Your task to perform on an android device: turn off airplane mode Image 0: 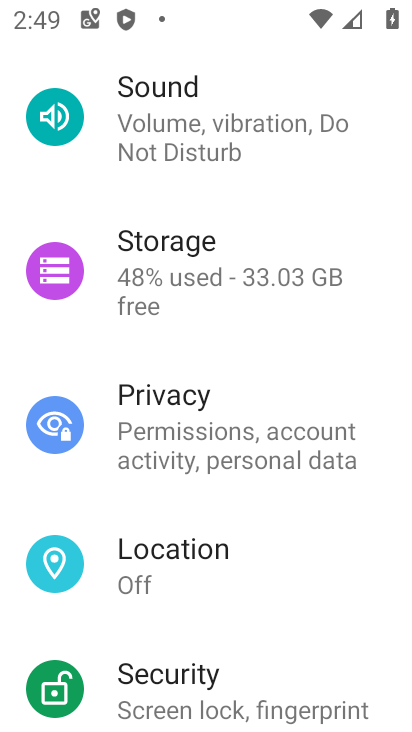
Step 0: drag from (262, 233) to (240, 631)
Your task to perform on an android device: turn off airplane mode Image 1: 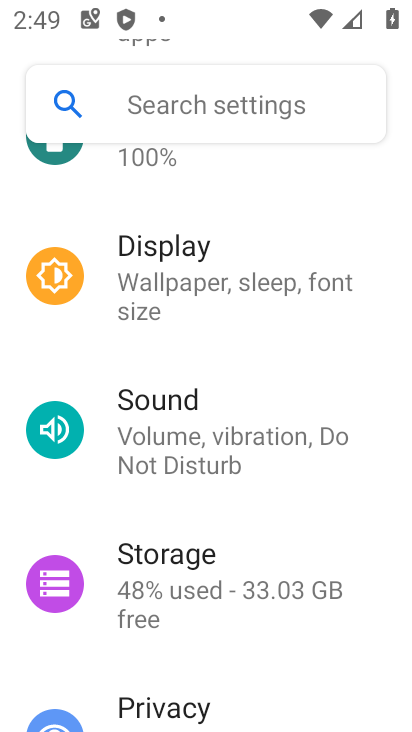
Step 1: drag from (184, 214) to (170, 579)
Your task to perform on an android device: turn off airplane mode Image 2: 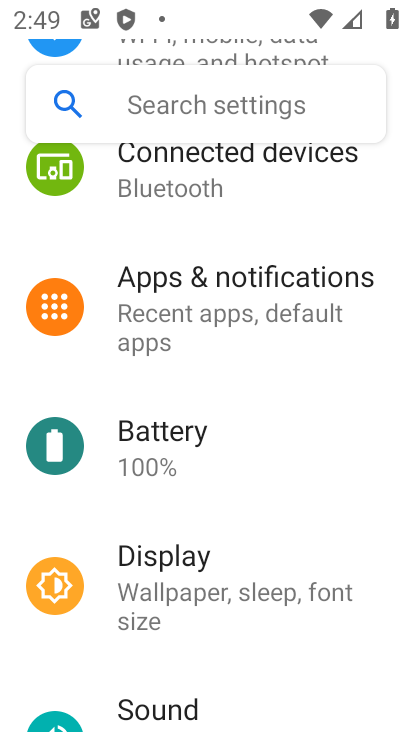
Step 2: drag from (249, 224) to (228, 698)
Your task to perform on an android device: turn off airplane mode Image 3: 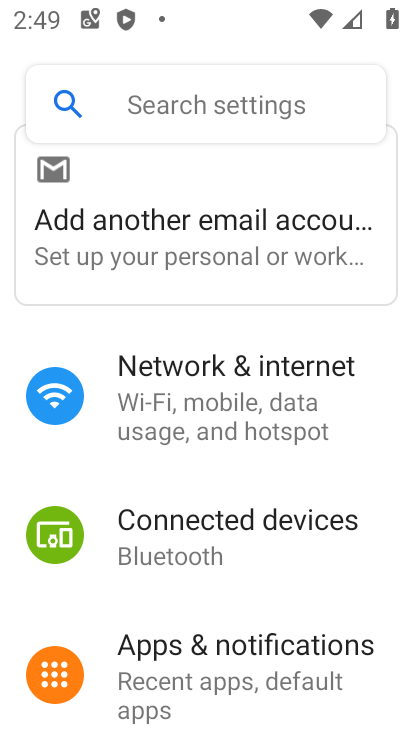
Step 3: click (243, 382)
Your task to perform on an android device: turn off airplane mode Image 4: 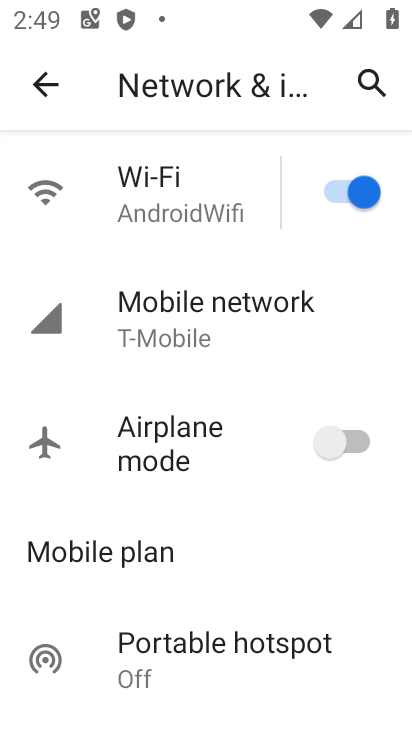
Step 4: click (146, 168)
Your task to perform on an android device: turn off airplane mode Image 5: 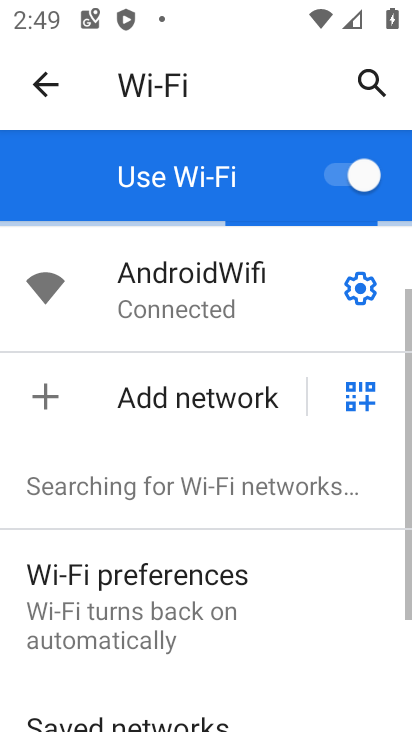
Step 5: click (41, 90)
Your task to perform on an android device: turn off airplane mode Image 6: 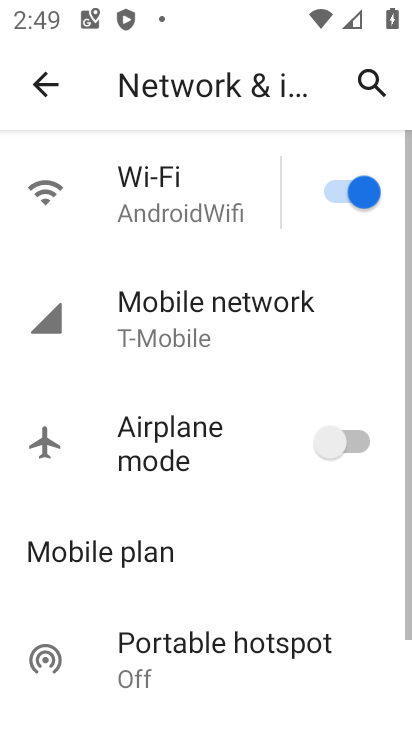
Step 6: task complete